Your task to perform on an android device: Show the shopping cart on ebay.com. Image 0: 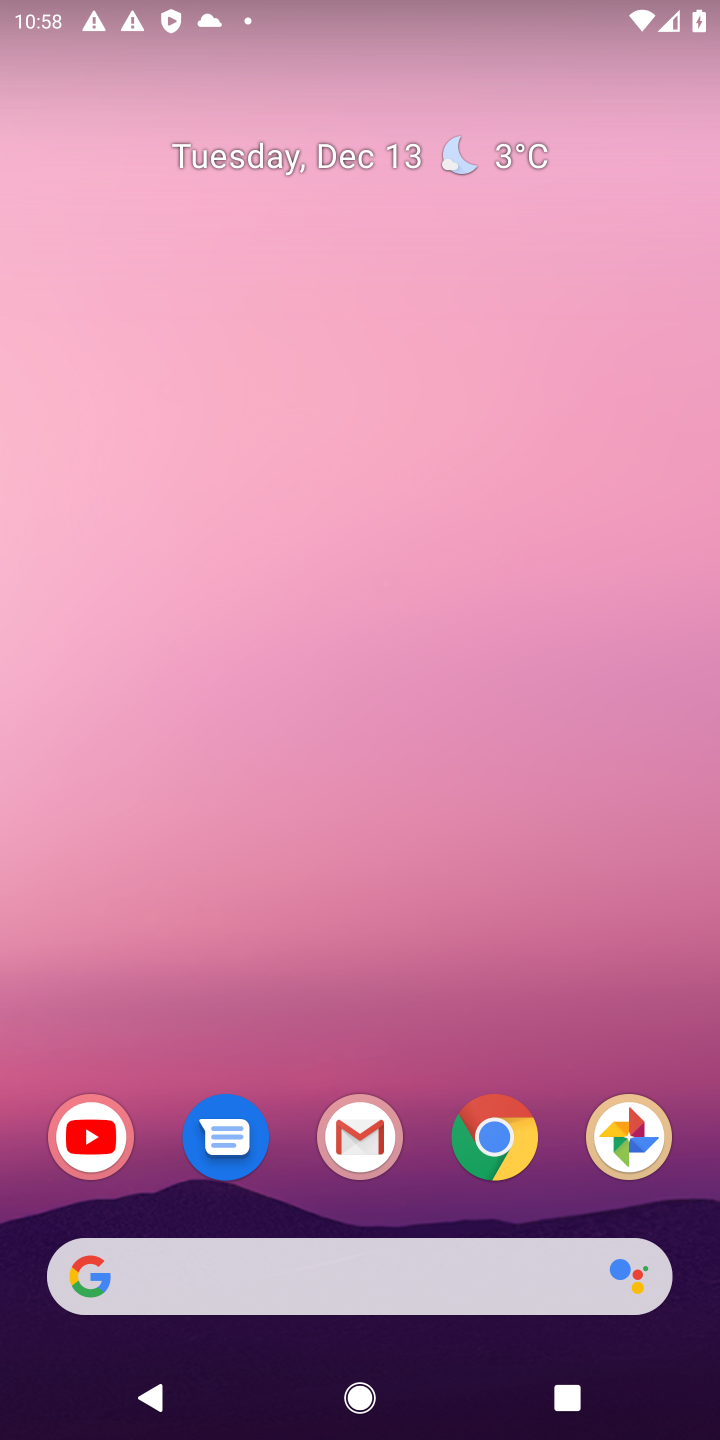
Step 0: click (507, 1120)
Your task to perform on an android device: Show the shopping cart on ebay.com. Image 1: 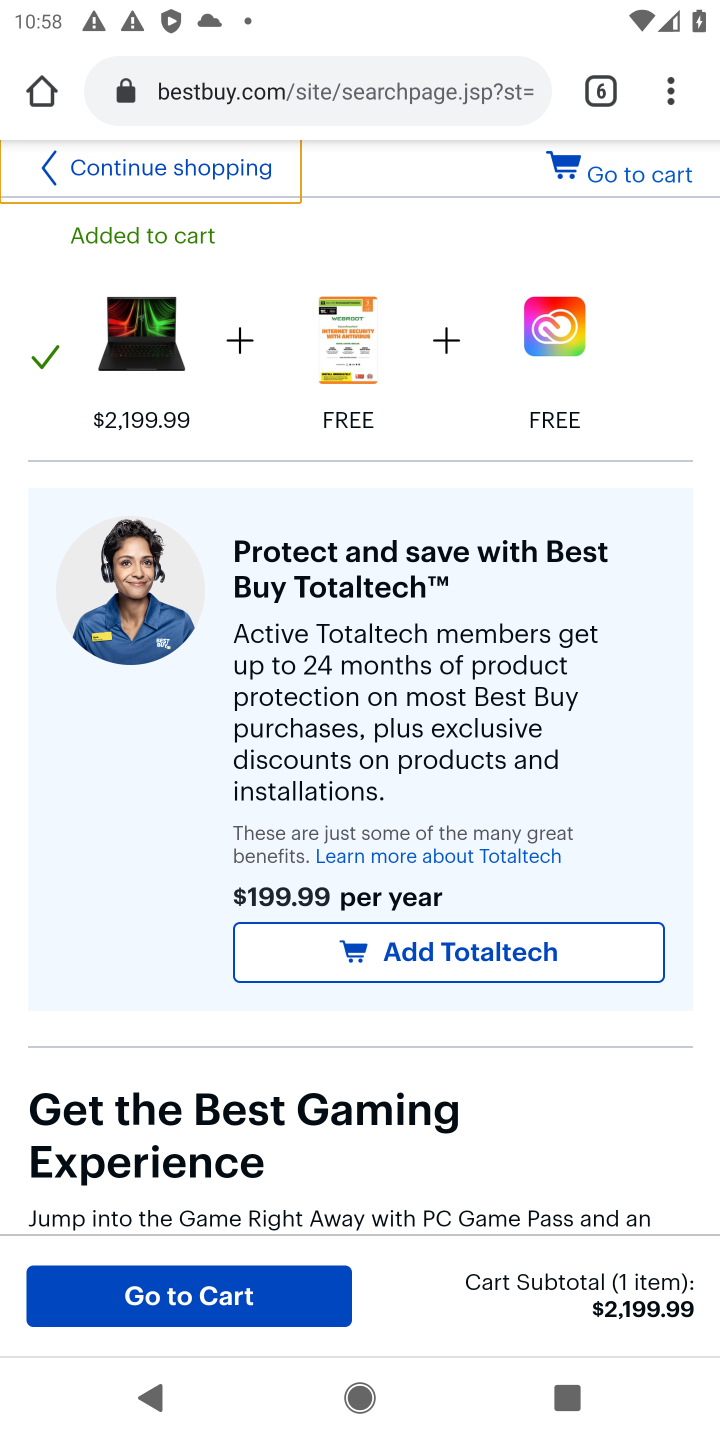
Step 1: click (593, 90)
Your task to perform on an android device: Show the shopping cart on ebay.com. Image 2: 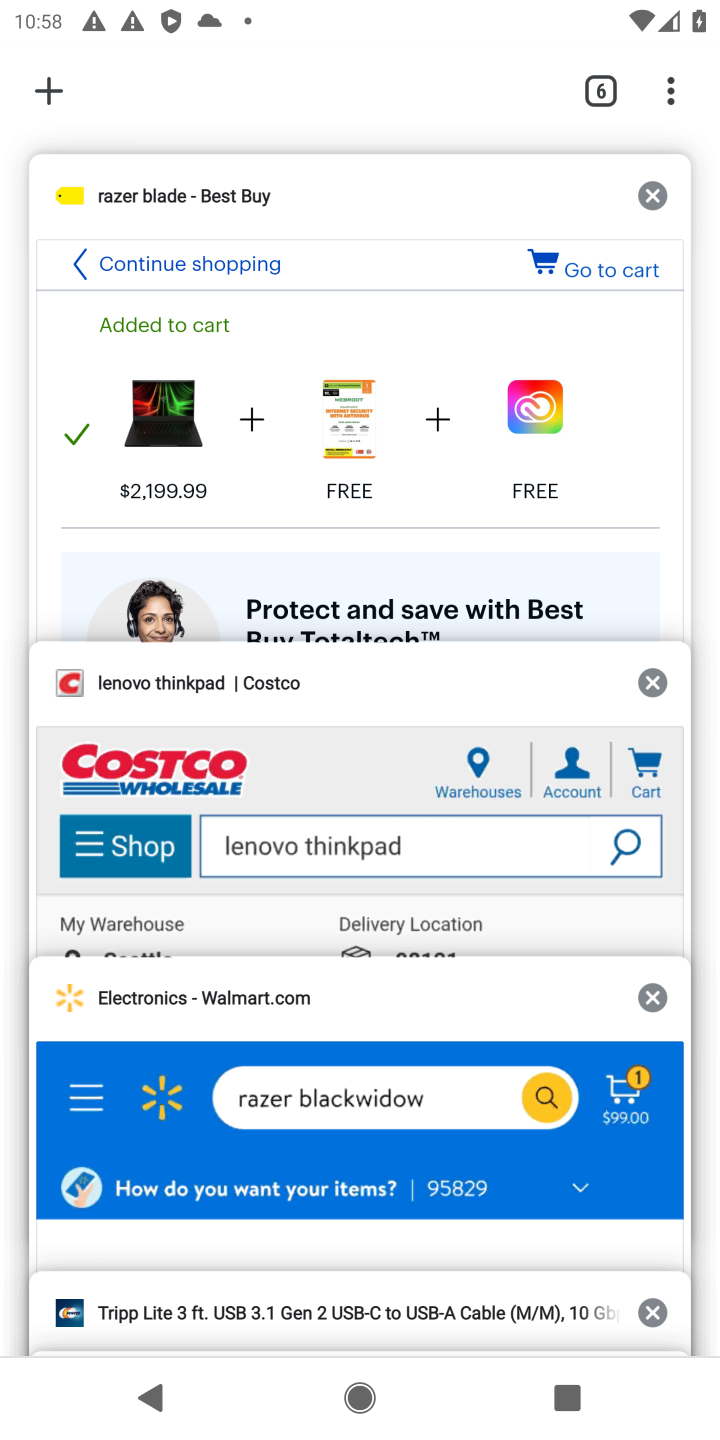
Step 2: drag from (118, 1313) to (236, 638)
Your task to perform on an android device: Show the shopping cart on ebay.com. Image 3: 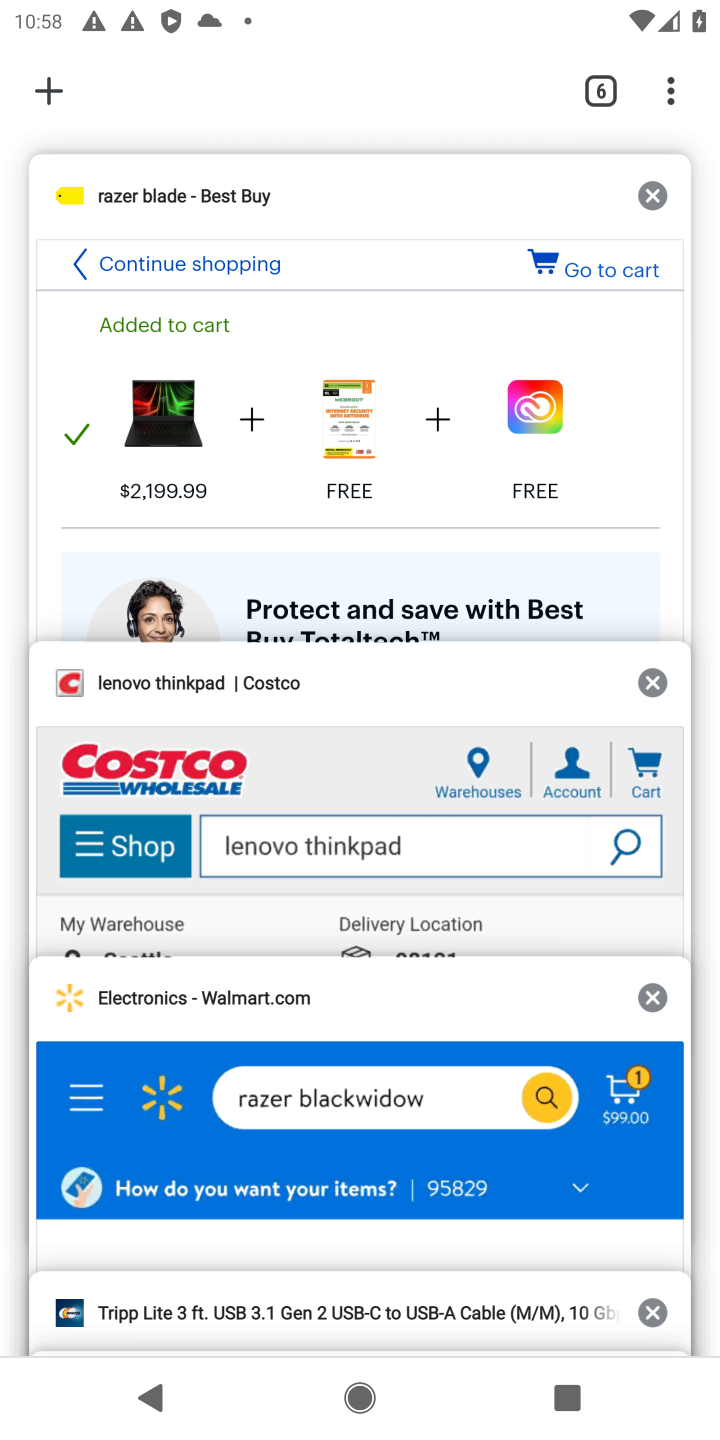
Step 3: drag from (436, 1321) to (435, 810)
Your task to perform on an android device: Show the shopping cart on ebay.com. Image 4: 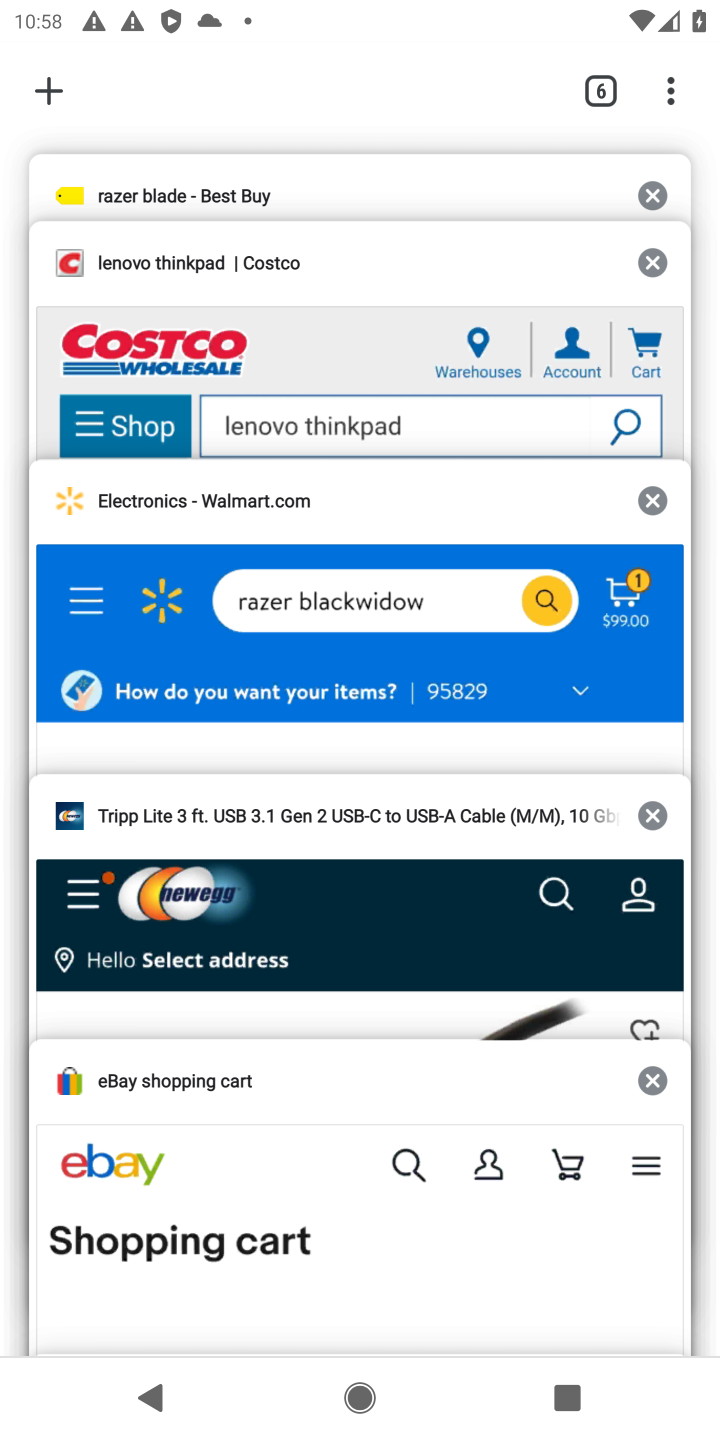
Step 4: click (313, 1197)
Your task to perform on an android device: Show the shopping cart on ebay.com. Image 5: 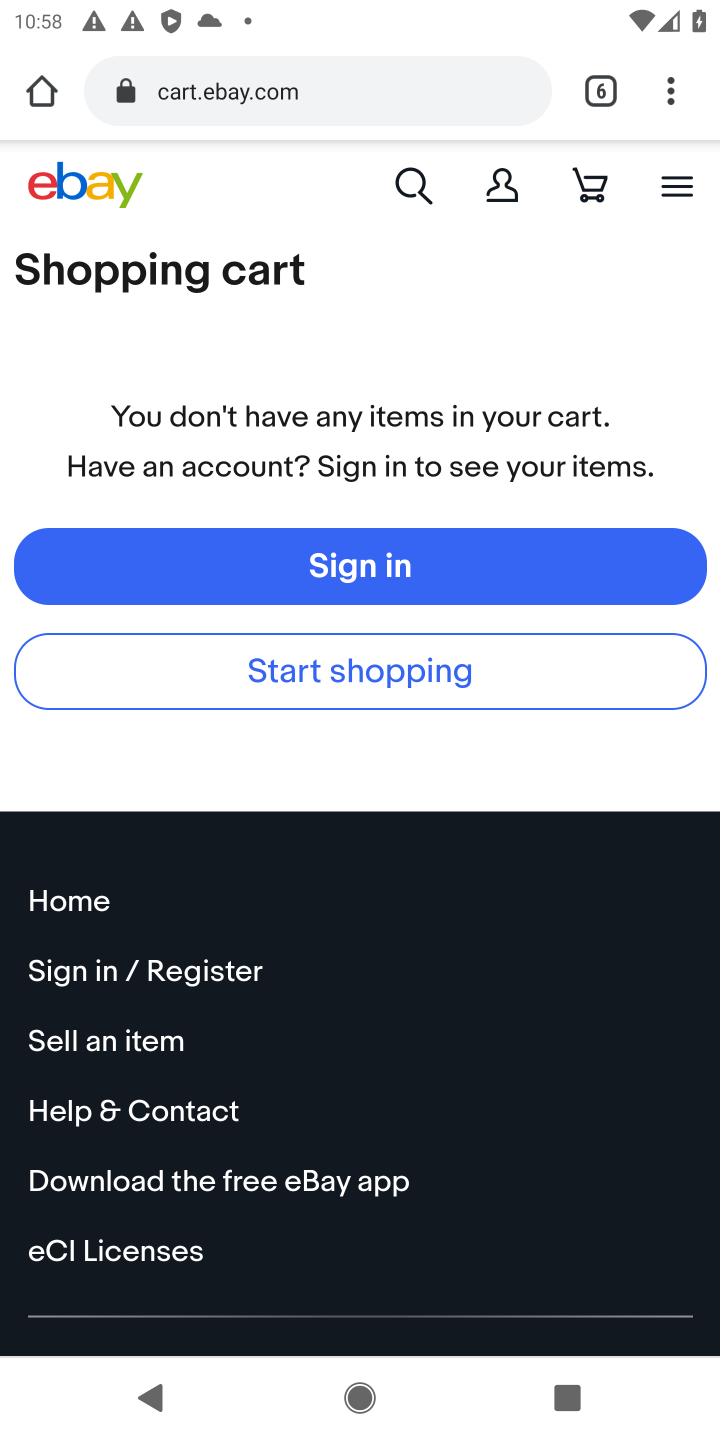
Step 5: task complete